Your task to perform on an android device: Add "macbook air" to the cart on costco.com Image 0: 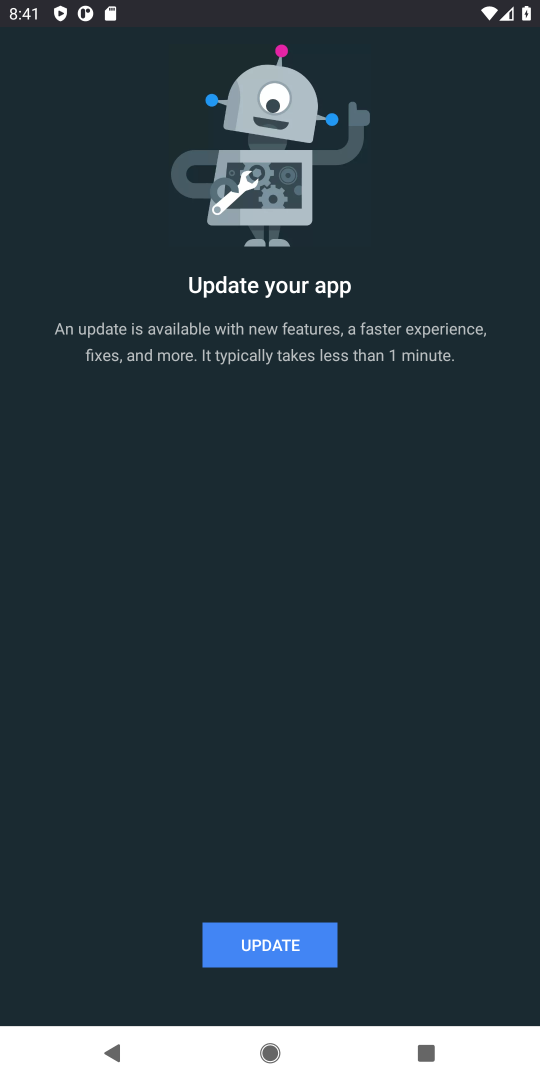
Step 0: press home button
Your task to perform on an android device: Add "macbook air" to the cart on costco.com Image 1: 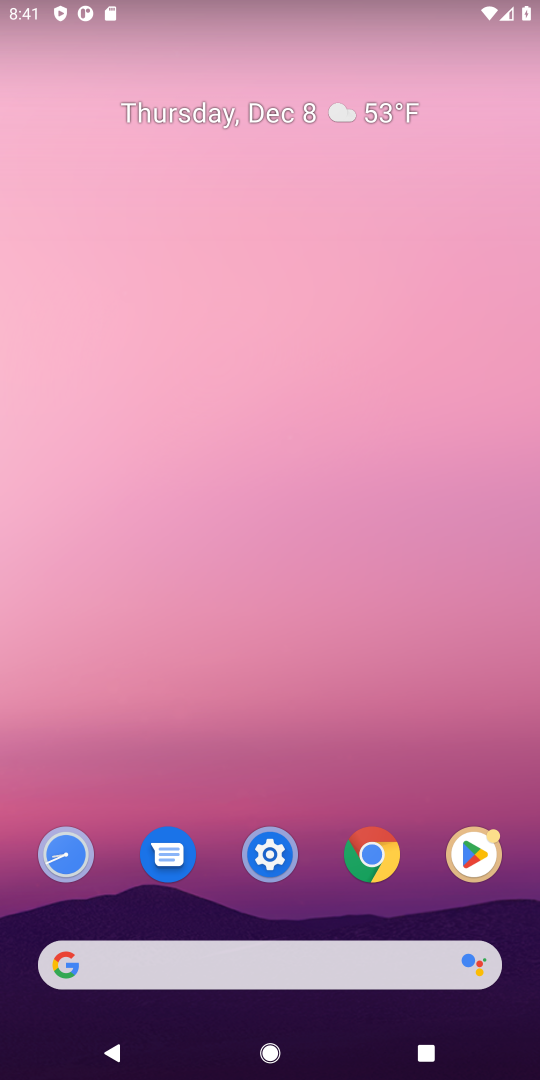
Step 1: click (102, 963)
Your task to perform on an android device: Add "macbook air" to the cart on costco.com Image 2: 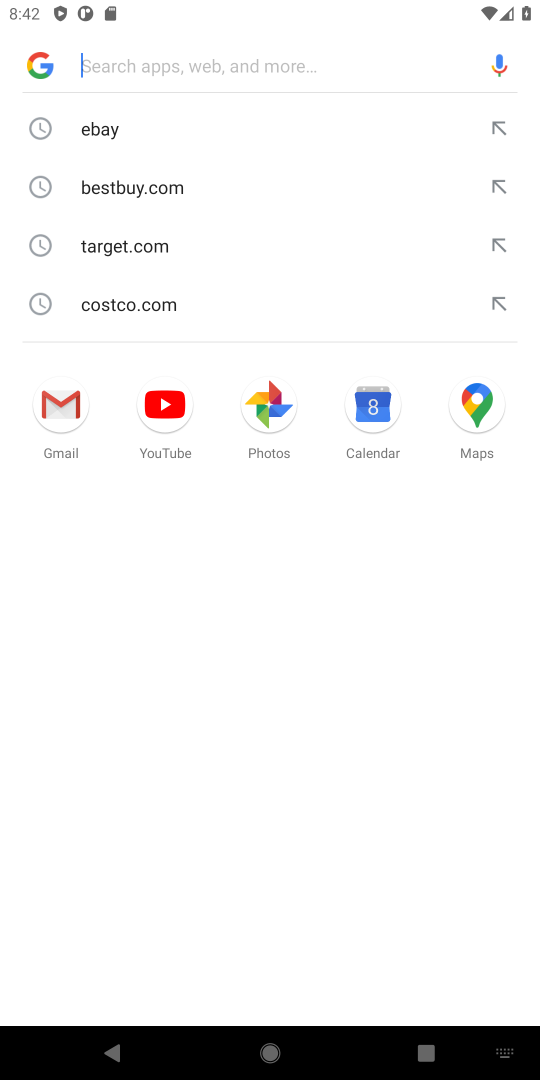
Step 2: press enter
Your task to perform on an android device: Add "macbook air" to the cart on costco.com Image 3: 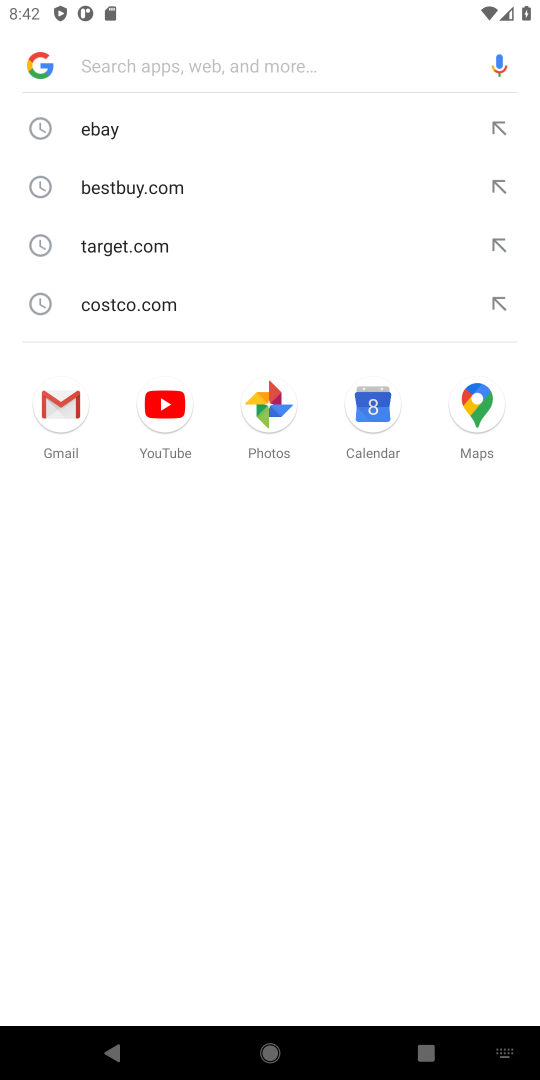
Step 3: type "costco.com"
Your task to perform on an android device: Add "macbook air" to the cart on costco.com Image 4: 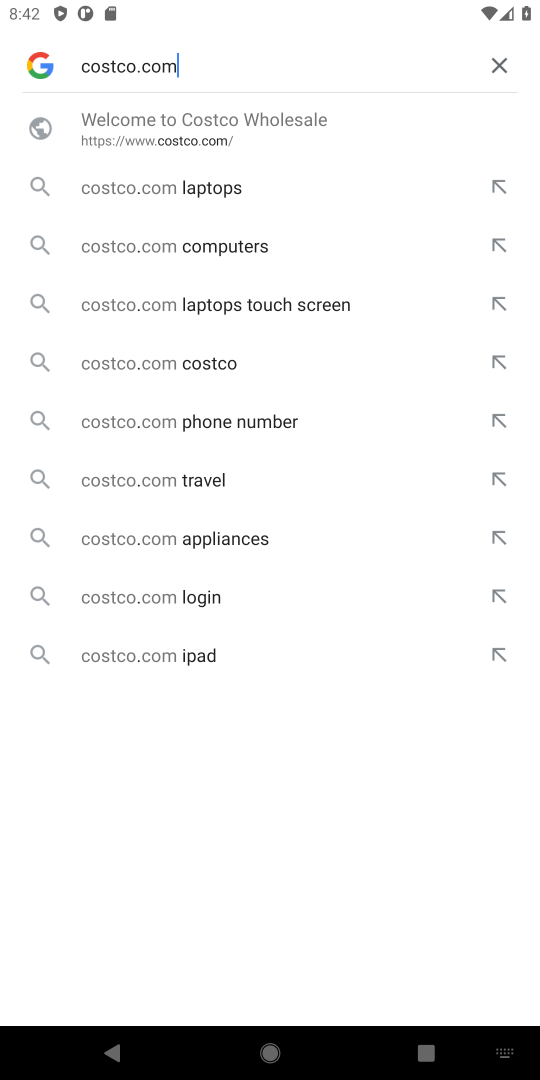
Step 4: press enter
Your task to perform on an android device: Add "macbook air" to the cart on costco.com Image 5: 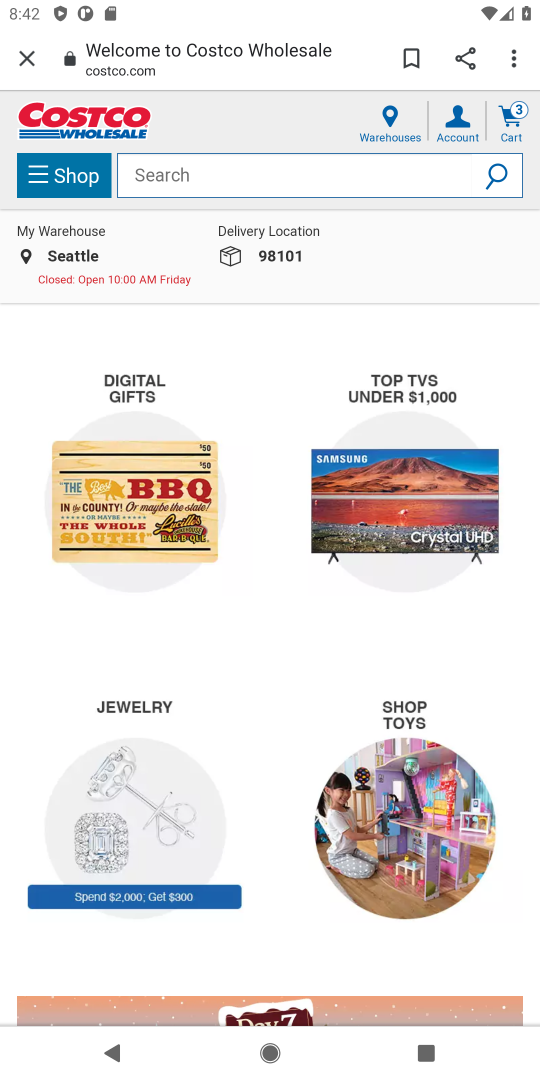
Step 5: click (158, 170)
Your task to perform on an android device: Add "macbook air" to the cart on costco.com Image 6: 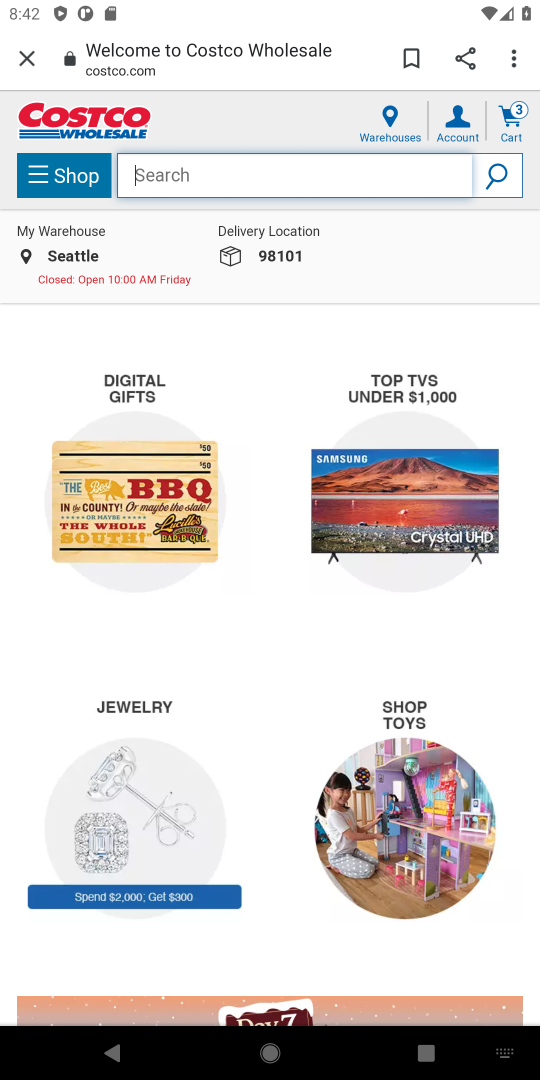
Step 6: press enter
Your task to perform on an android device: Add "macbook air" to the cart on costco.com Image 7: 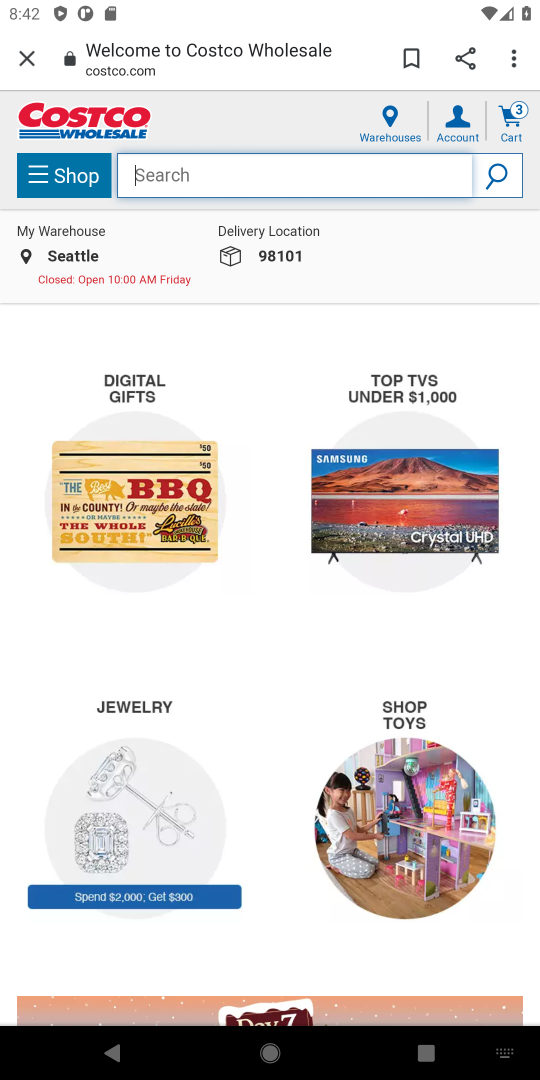
Step 7: type "macbook air"
Your task to perform on an android device: Add "macbook air" to the cart on costco.com Image 8: 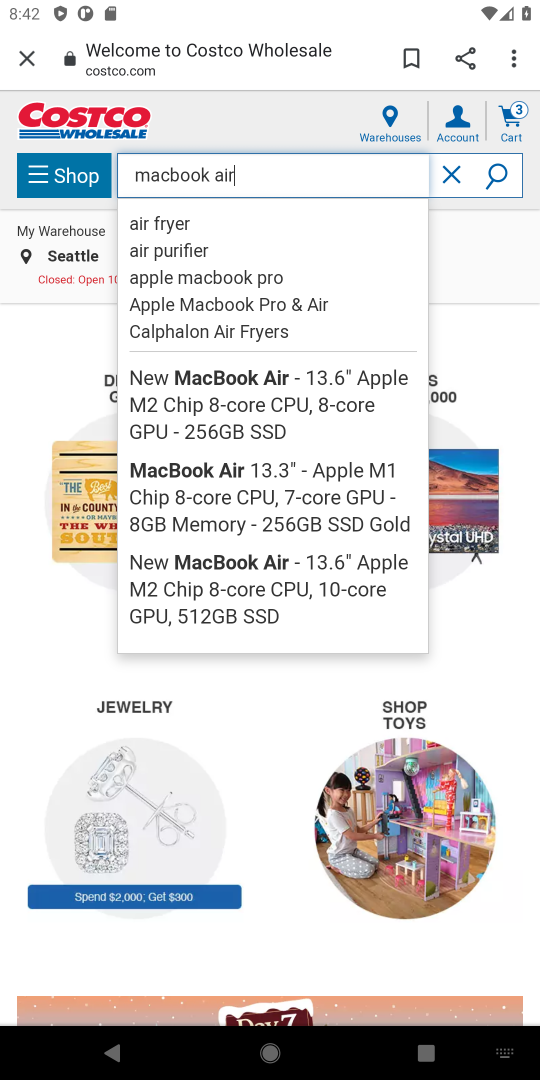
Step 8: press enter
Your task to perform on an android device: Add "macbook air" to the cart on costco.com Image 9: 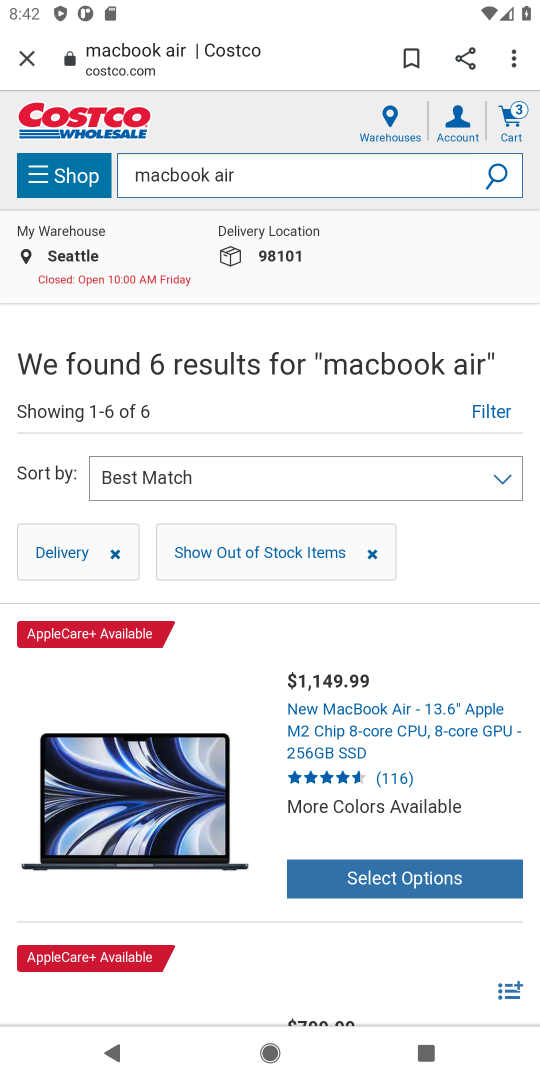
Step 9: click (352, 724)
Your task to perform on an android device: Add "macbook air" to the cart on costco.com Image 10: 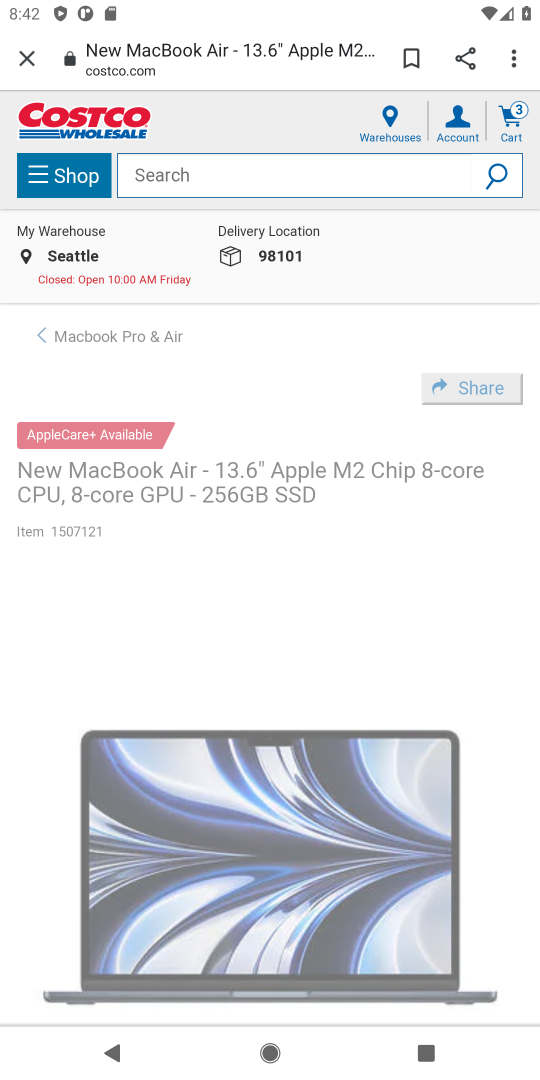
Step 10: drag from (347, 841) to (348, 295)
Your task to perform on an android device: Add "macbook air" to the cart on costco.com Image 11: 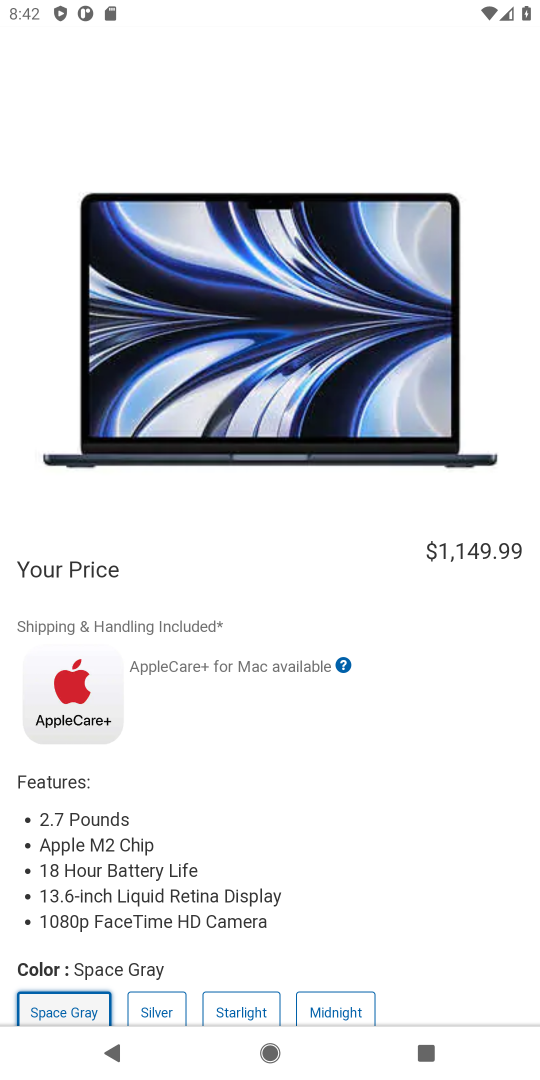
Step 11: drag from (236, 916) to (260, 308)
Your task to perform on an android device: Add "macbook air" to the cart on costco.com Image 12: 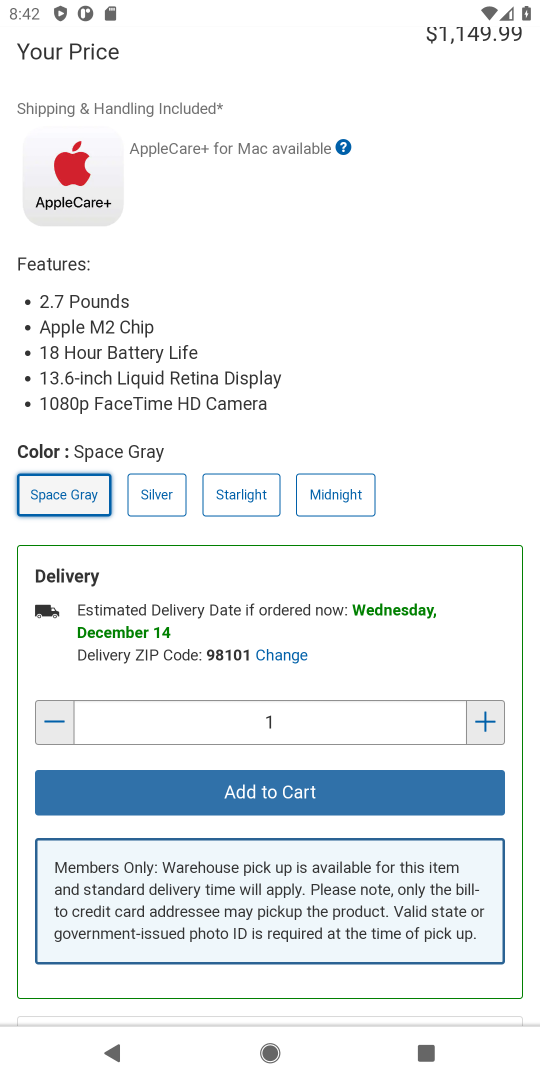
Step 12: click (251, 802)
Your task to perform on an android device: Add "macbook air" to the cart on costco.com Image 13: 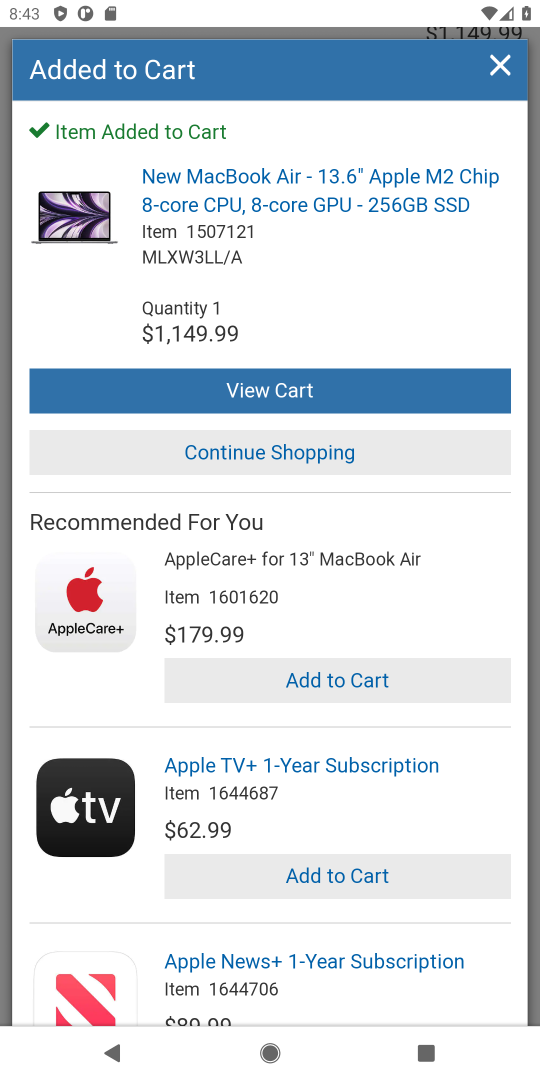
Step 13: task complete